Your task to perform on an android device: turn on wifi Image 0: 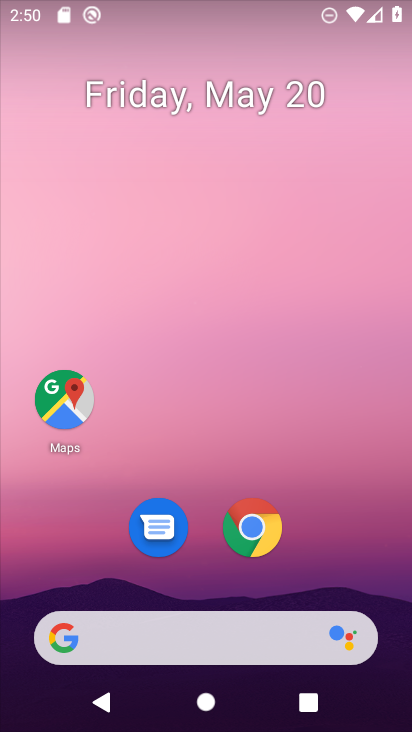
Step 0: drag from (264, 589) to (336, 130)
Your task to perform on an android device: turn on wifi Image 1: 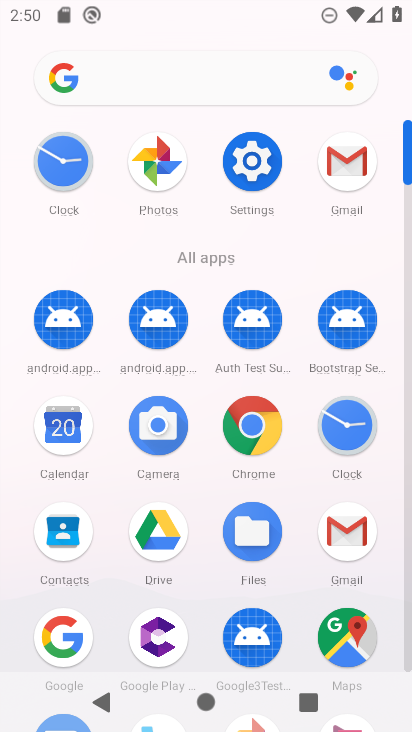
Step 1: task complete